Your task to perform on an android device: Open calendar and show me the first week of next month Image 0: 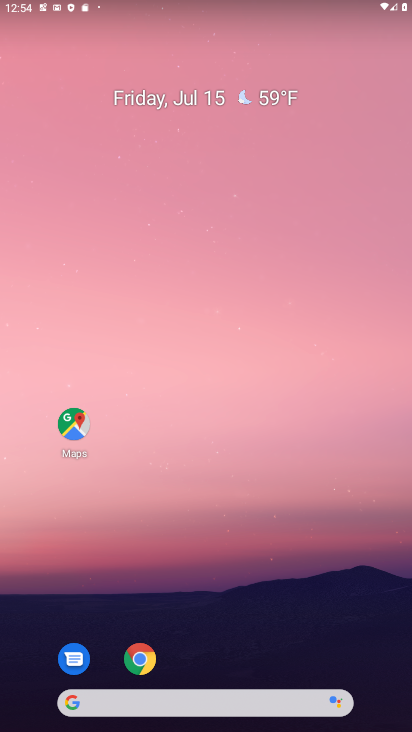
Step 0: drag from (263, 713) to (290, 34)
Your task to perform on an android device: Open calendar and show me the first week of next month Image 1: 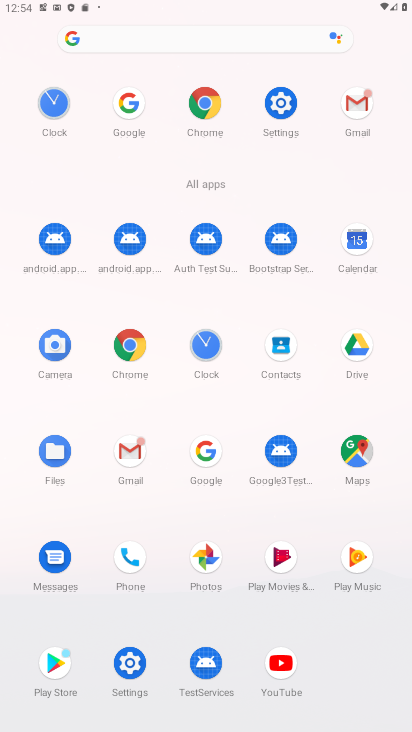
Step 1: click (353, 248)
Your task to perform on an android device: Open calendar and show me the first week of next month Image 2: 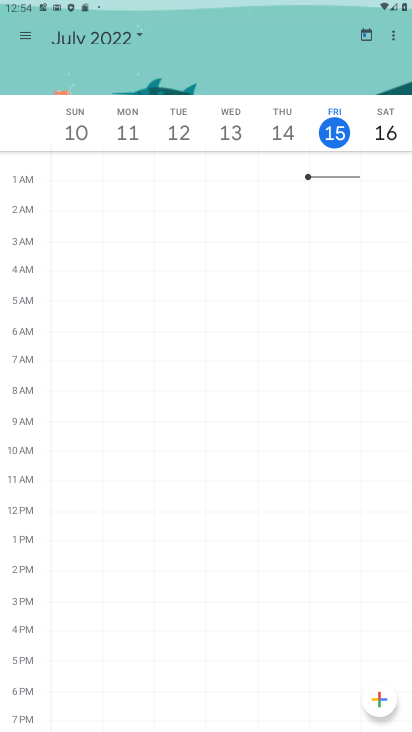
Step 2: click (140, 32)
Your task to perform on an android device: Open calendar and show me the first week of next month Image 3: 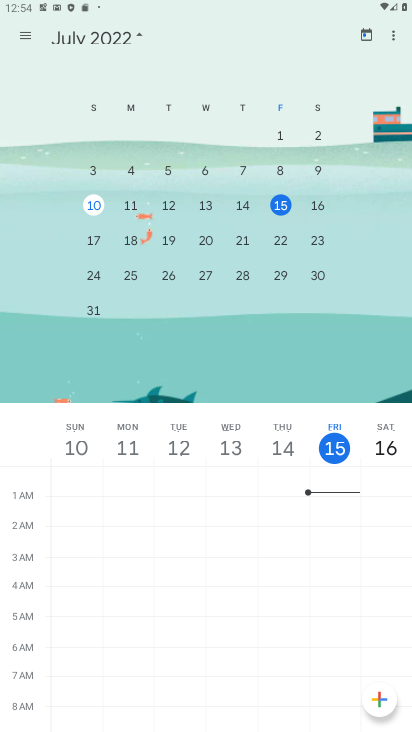
Step 3: drag from (300, 250) to (0, 258)
Your task to perform on an android device: Open calendar and show me the first week of next month Image 4: 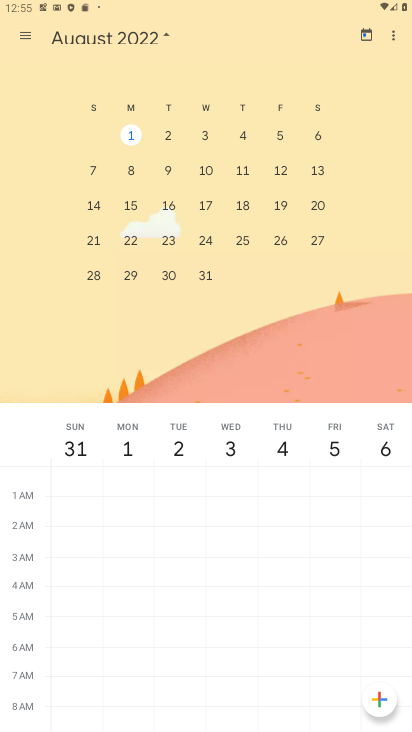
Step 4: click (23, 33)
Your task to perform on an android device: Open calendar and show me the first week of next month Image 5: 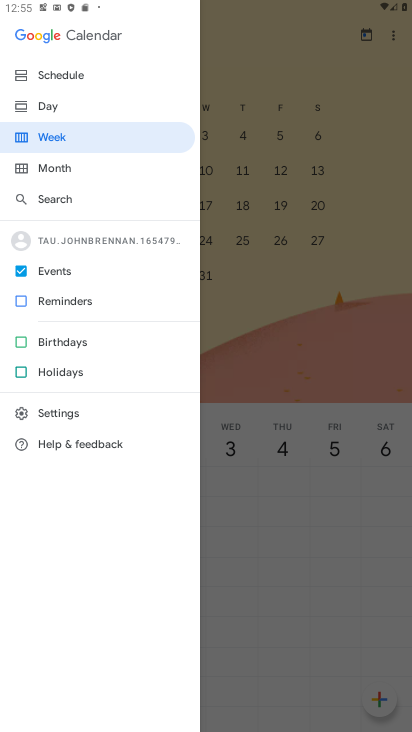
Step 5: click (50, 132)
Your task to perform on an android device: Open calendar and show me the first week of next month Image 6: 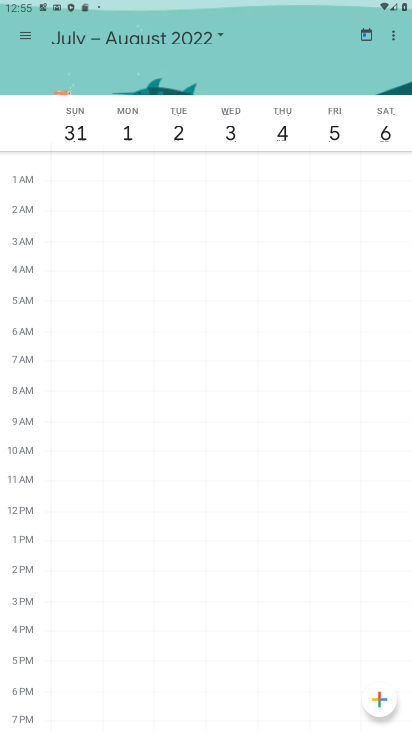
Step 6: task complete